Your task to perform on an android device: Open the calendar and show me this week's events Image 0: 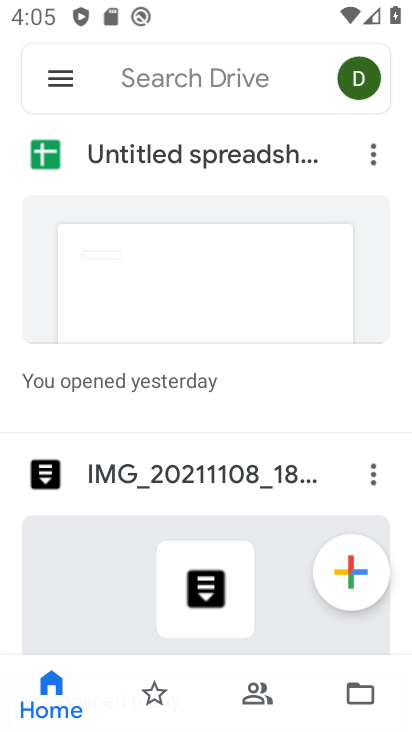
Step 0: press home button
Your task to perform on an android device: Open the calendar and show me this week's events Image 1: 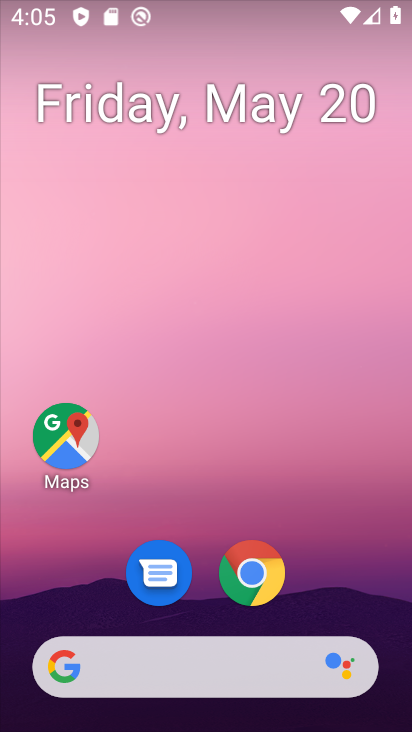
Step 1: drag from (374, 615) to (298, 190)
Your task to perform on an android device: Open the calendar and show me this week's events Image 2: 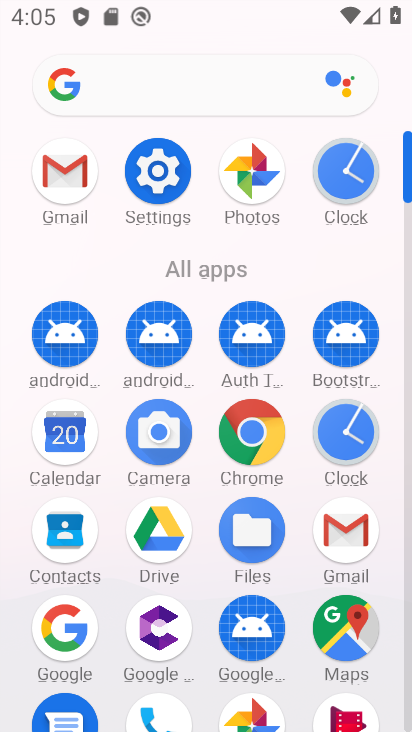
Step 2: click (70, 418)
Your task to perform on an android device: Open the calendar and show me this week's events Image 3: 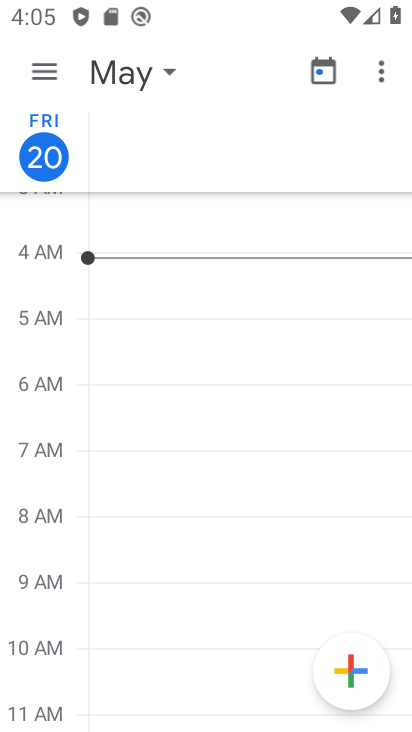
Step 3: click (44, 70)
Your task to perform on an android device: Open the calendar and show me this week's events Image 4: 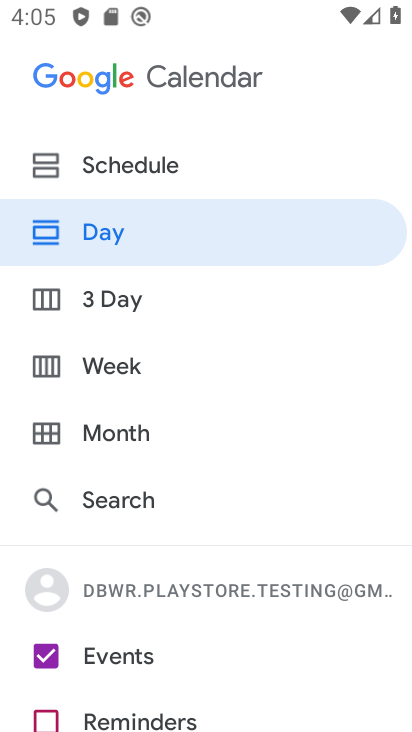
Step 4: click (128, 377)
Your task to perform on an android device: Open the calendar and show me this week's events Image 5: 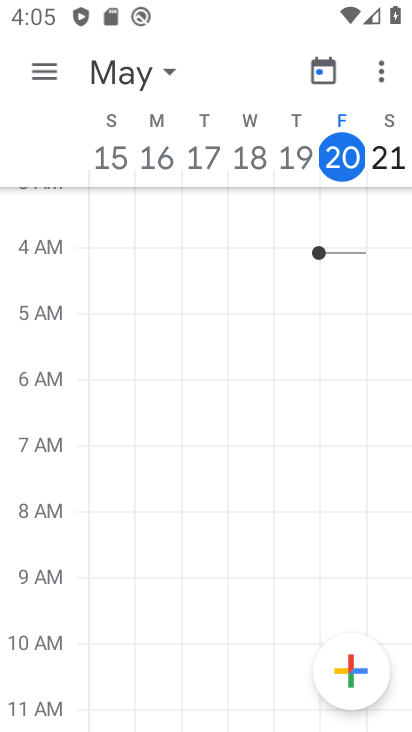
Step 5: task complete